Your task to perform on an android device: What's on my calendar tomorrow? Image 0: 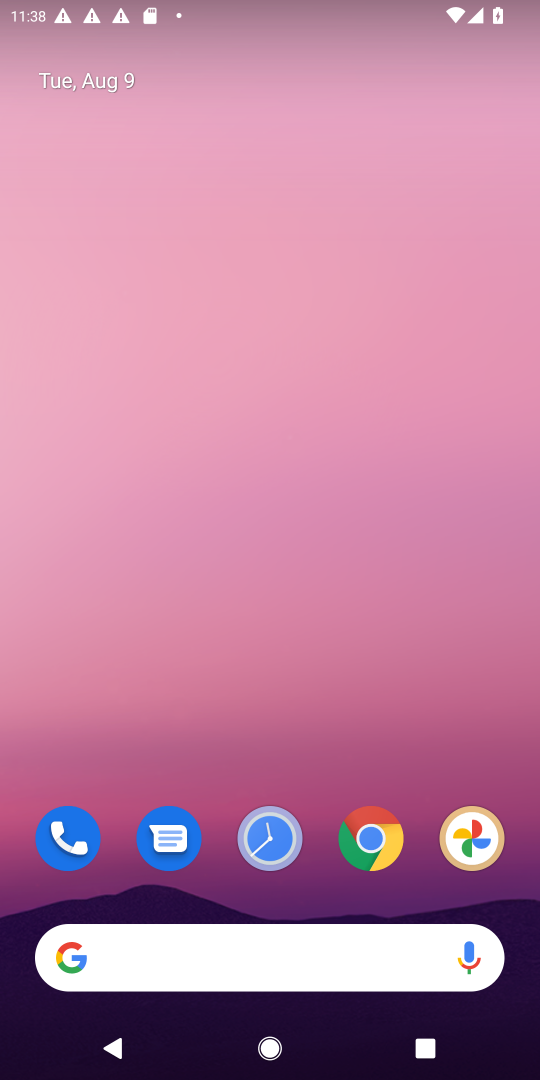
Step 0: drag from (304, 895) to (367, 227)
Your task to perform on an android device: What's on my calendar tomorrow? Image 1: 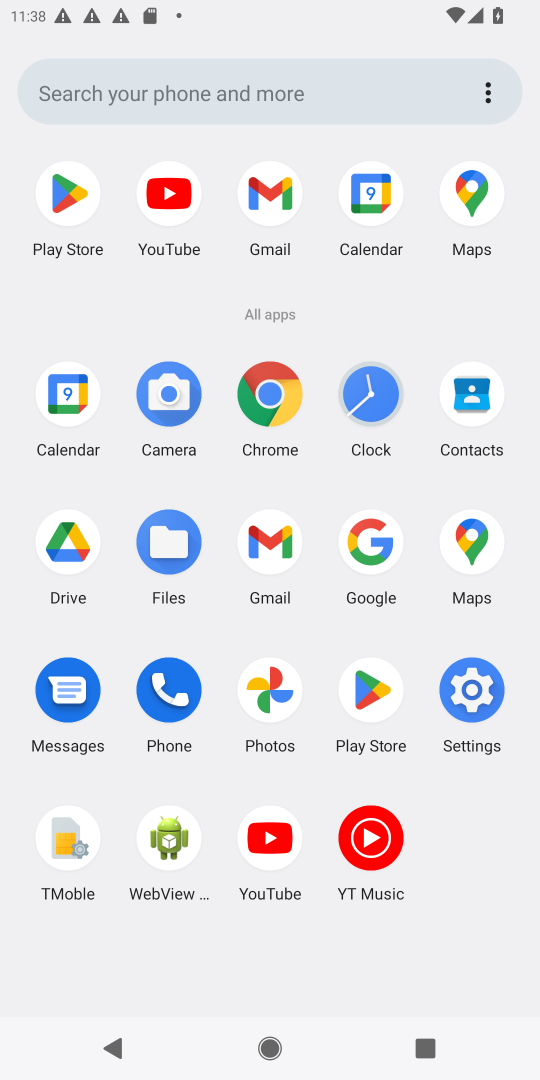
Step 1: click (368, 197)
Your task to perform on an android device: What's on my calendar tomorrow? Image 2: 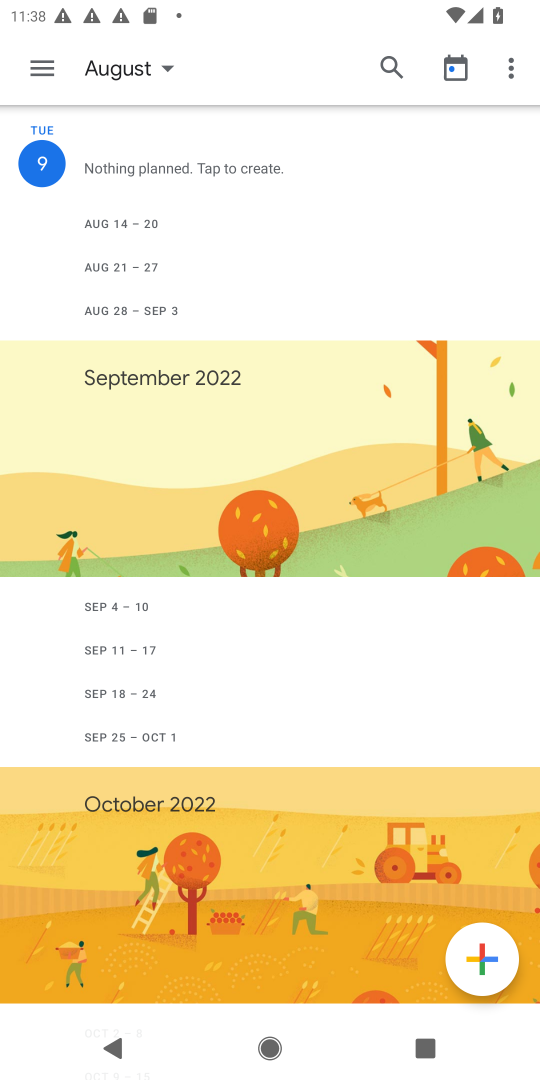
Step 2: click (144, 65)
Your task to perform on an android device: What's on my calendar tomorrow? Image 3: 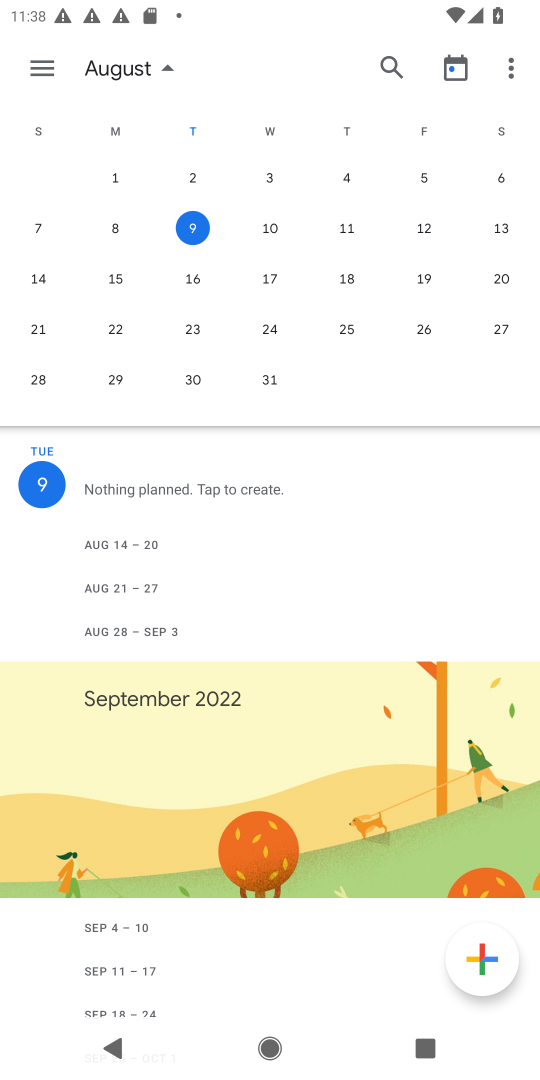
Step 3: click (266, 229)
Your task to perform on an android device: What's on my calendar tomorrow? Image 4: 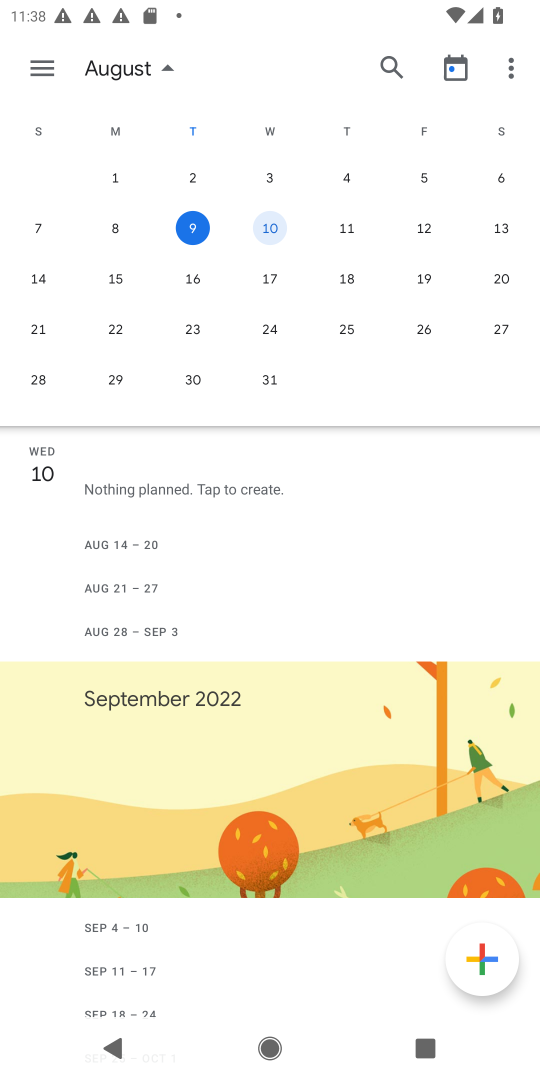
Step 4: task complete